Your task to perform on an android device: What is the news today? Image 0: 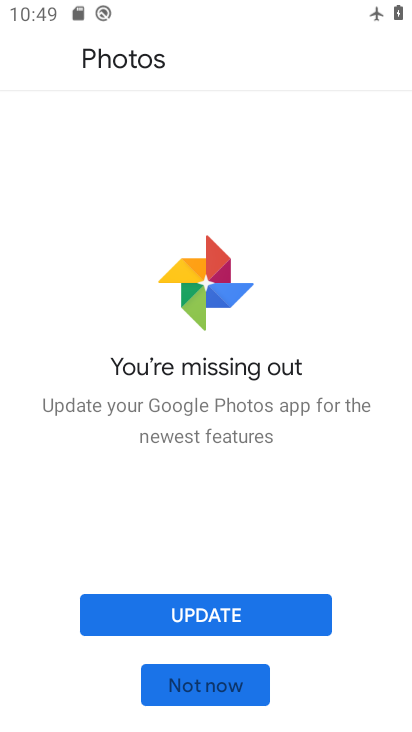
Step 0: press home button
Your task to perform on an android device: What is the news today? Image 1: 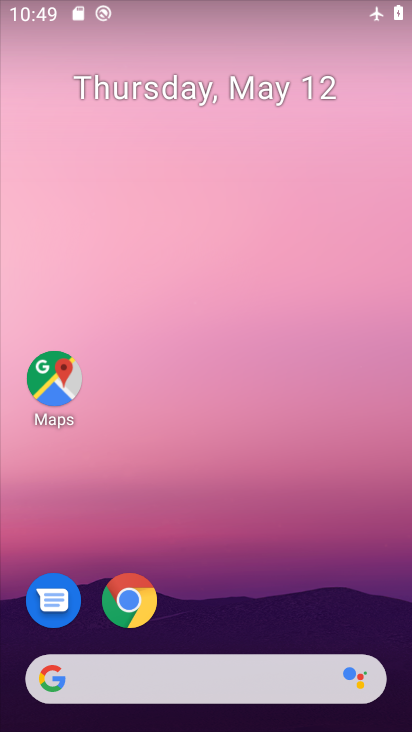
Step 1: click (110, 579)
Your task to perform on an android device: What is the news today? Image 2: 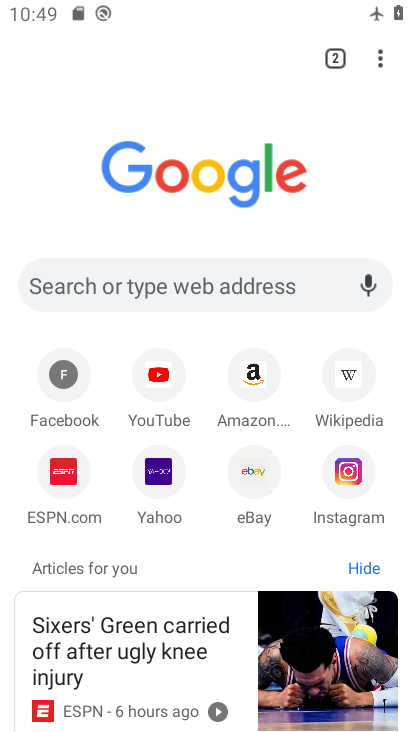
Step 2: click (193, 274)
Your task to perform on an android device: What is the news today? Image 3: 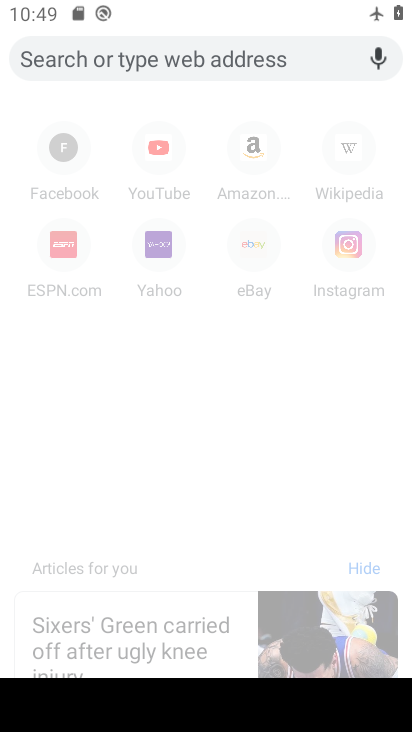
Step 3: type "what is the news today?"
Your task to perform on an android device: What is the news today? Image 4: 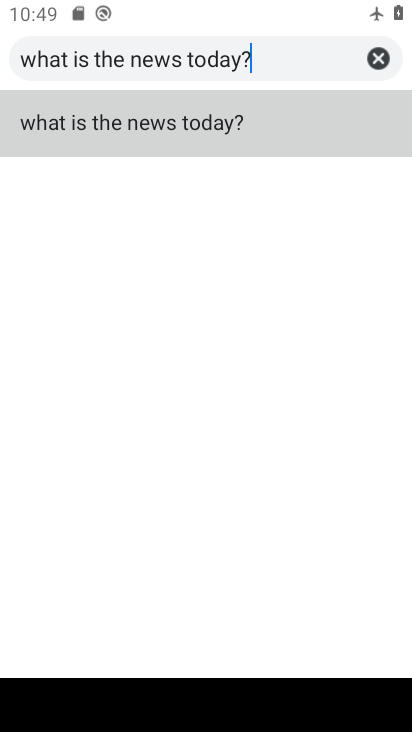
Step 4: click (147, 127)
Your task to perform on an android device: What is the news today? Image 5: 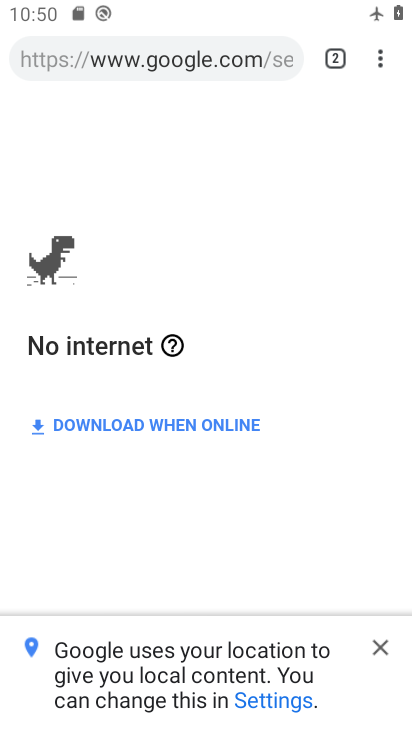
Step 5: task complete